Your task to perform on an android device: turn off smart reply in the gmail app Image 0: 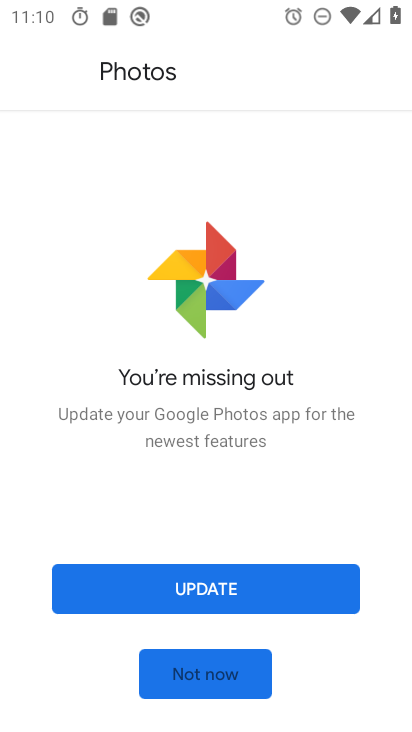
Step 0: press home button
Your task to perform on an android device: turn off smart reply in the gmail app Image 1: 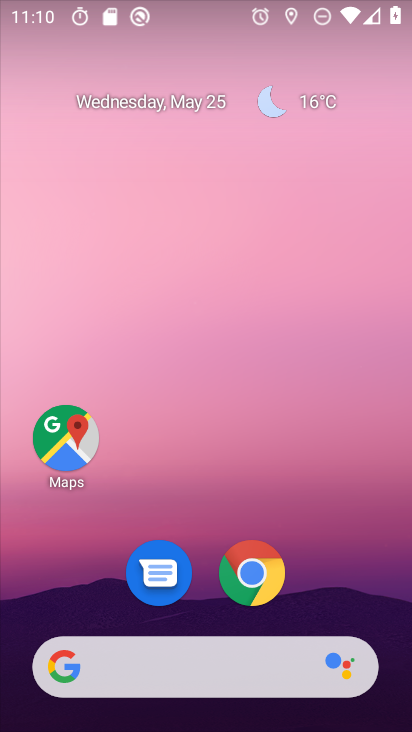
Step 1: drag from (351, 613) to (356, 0)
Your task to perform on an android device: turn off smart reply in the gmail app Image 2: 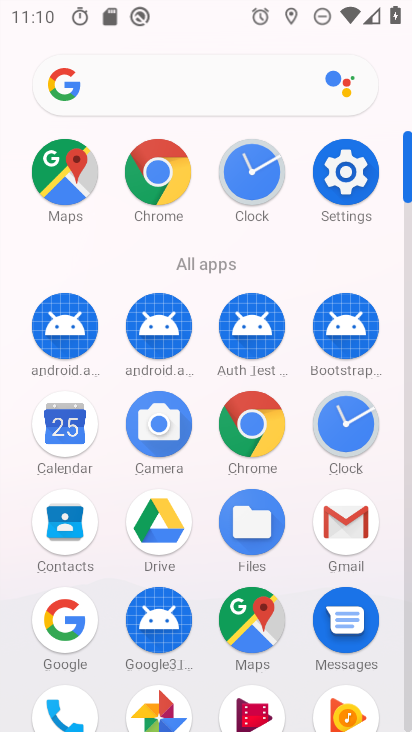
Step 2: click (341, 520)
Your task to perform on an android device: turn off smart reply in the gmail app Image 3: 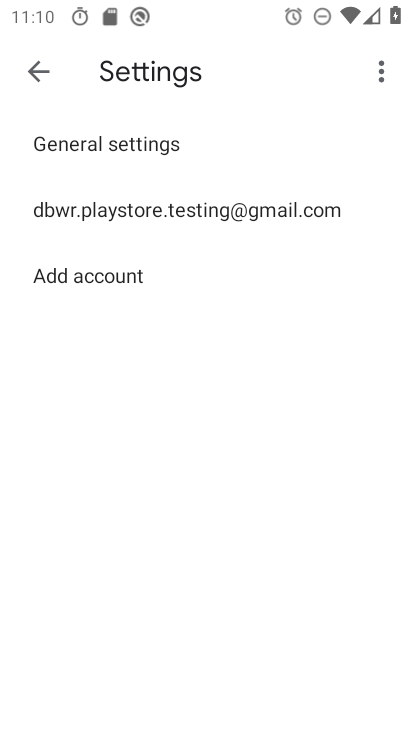
Step 3: click (110, 218)
Your task to perform on an android device: turn off smart reply in the gmail app Image 4: 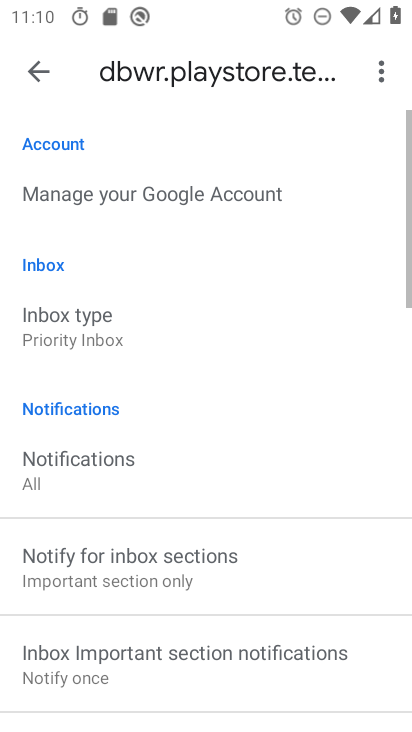
Step 4: drag from (219, 588) to (183, 94)
Your task to perform on an android device: turn off smart reply in the gmail app Image 5: 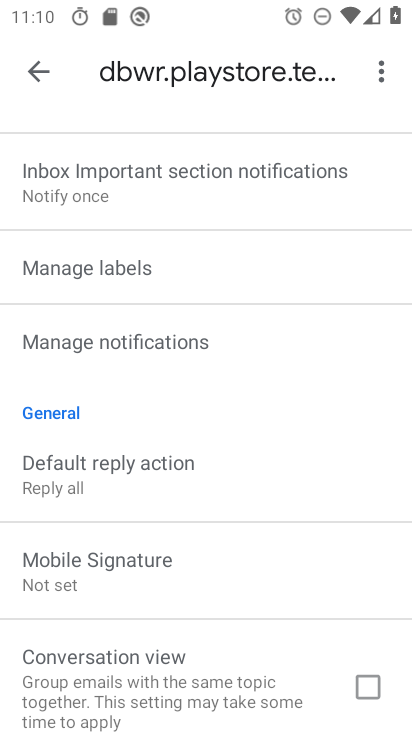
Step 5: drag from (153, 491) to (156, 69)
Your task to perform on an android device: turn off smart reply in the gmail app Image 6: 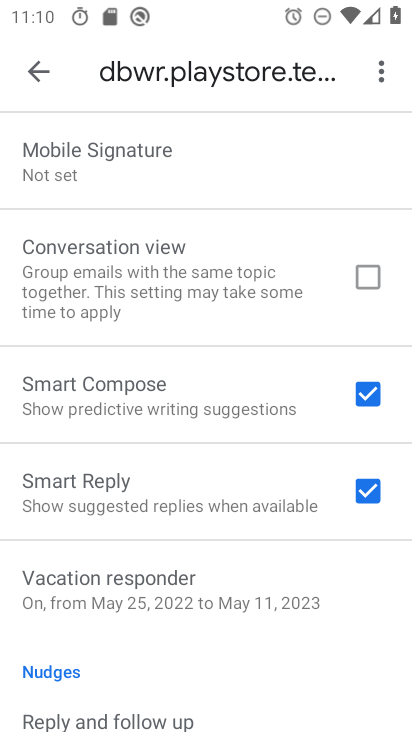
Step 6: click (366, 499)
Your task to perform on an android device: turn off smart reply in the gmail app Image 7: 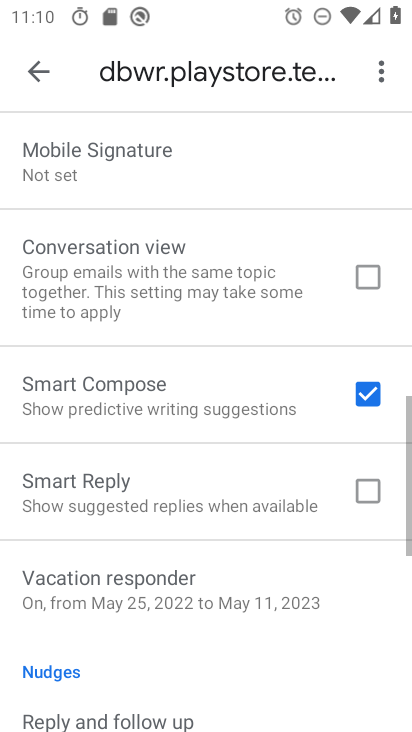
Step 7: task complete